Your task to perform on an android device: Do I have any events today? Image 0: 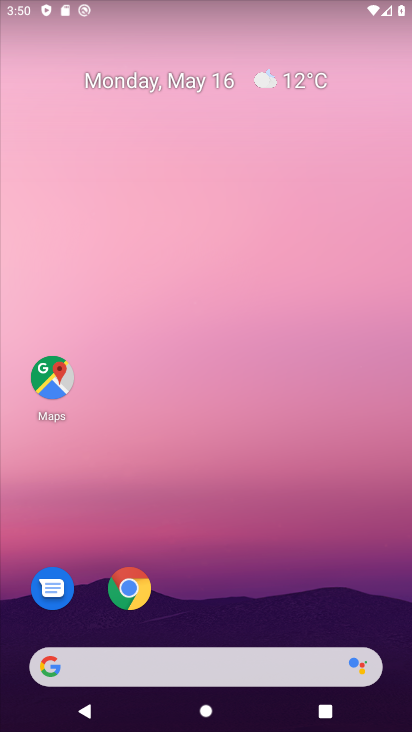
Step 0: drag from (170, 633) to (325, 130)
Your task to perform on an android device: Do I have any events today? Image 1: 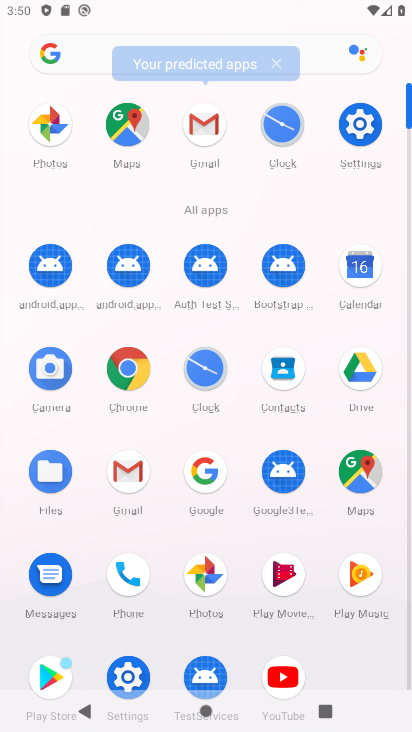
Step 1: click (373, 275)
Your task to perform on an android device: Do I have any events today? Image 2: 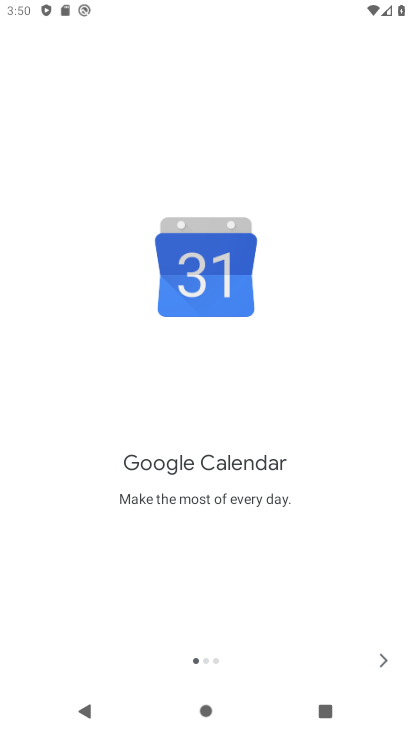
Step 2: click (383, 678)
Your task to perform on an android device: Do I have any events today? Image 3: 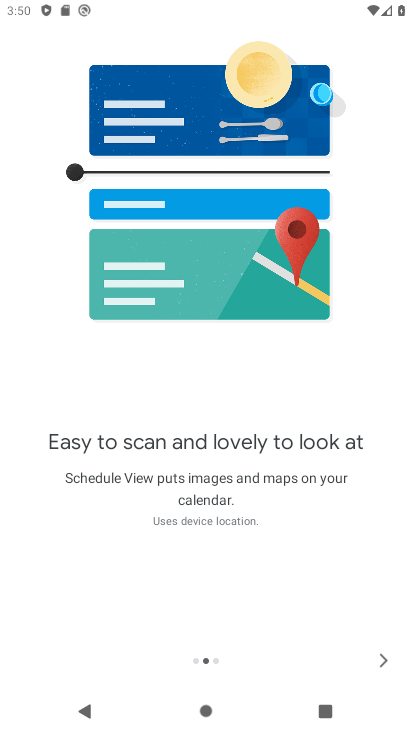
Step 3: click (383, 678)
Your task to perform on an android device: Do I have any events today? Image 4: 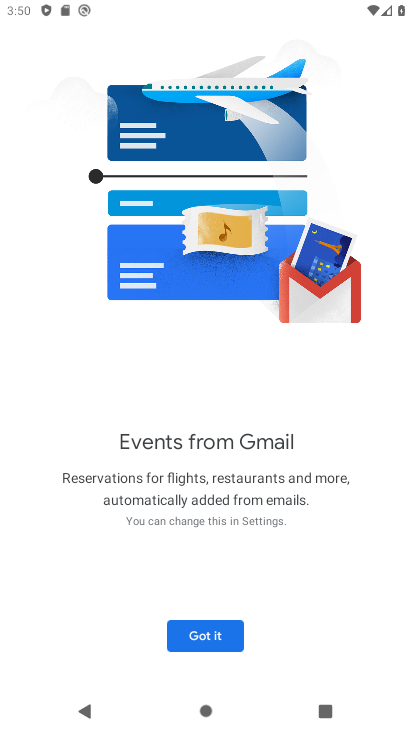
Step 4: click (381, 673)
Your task to perform on an android device: Do I have any events today? Image 5: 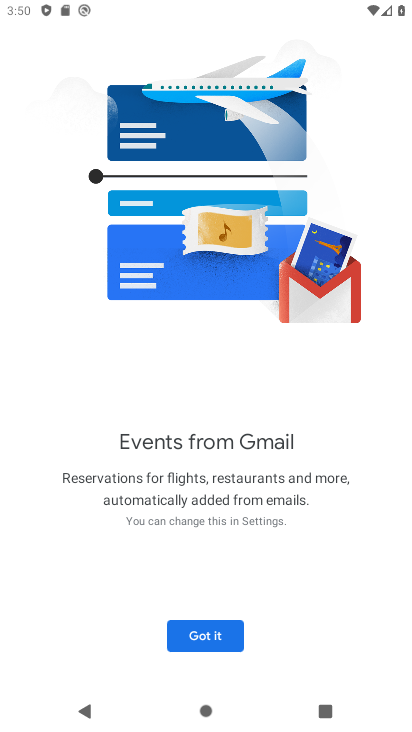
Step 5: click (216, 629)
Your task to perform on an android device: Do I have any events today? Image 6: 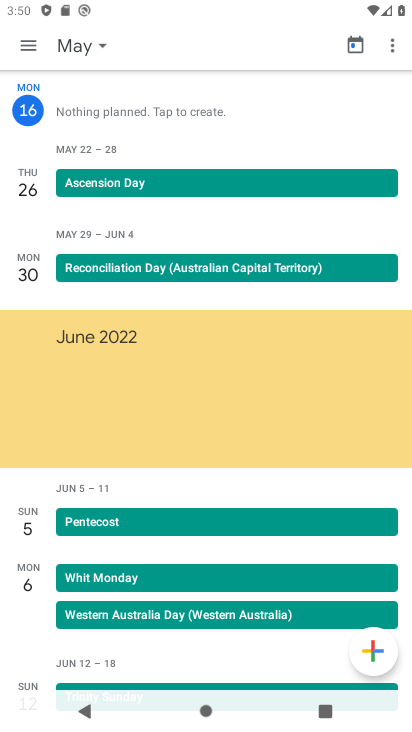
Step 6: click (31, 105)
Your task to perform on an android device: Do I have any events today? Image 7: 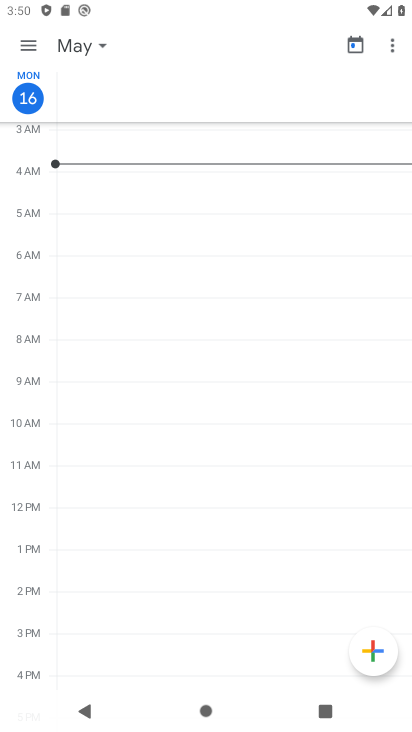
Step 7: task complete